Your task to perform on an android device: uninstall "File Manager" Image 0: 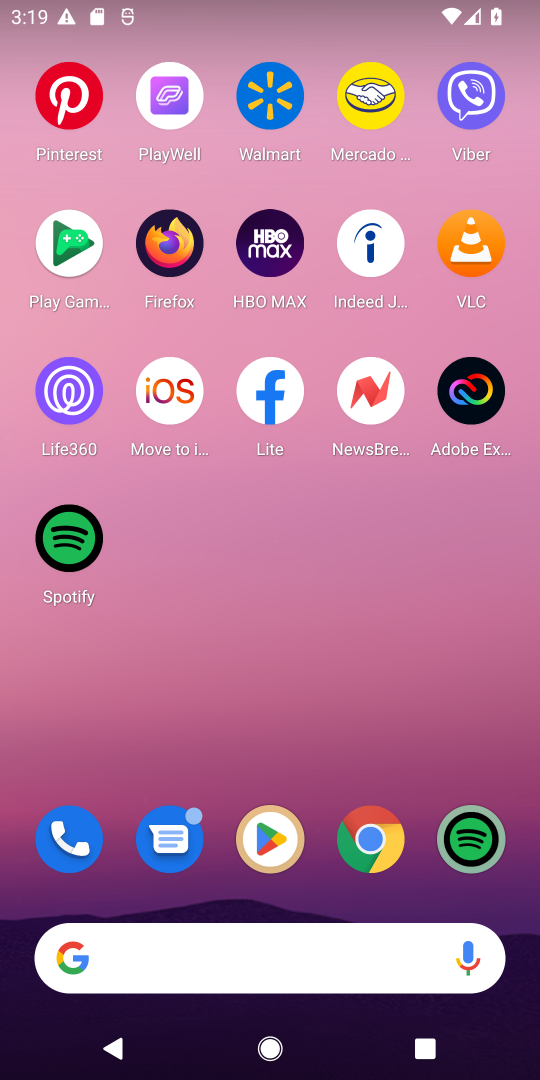
Step 0: click (284, 857)
Your task to perform on an android device: uninstall "File Manager" Image 1: 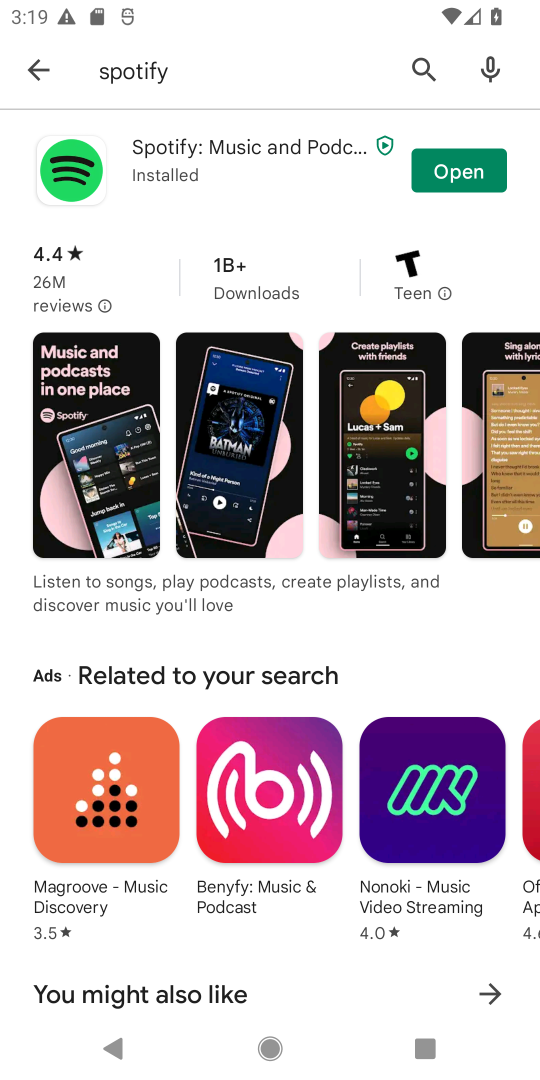
Step 1: click (43, 80)
Your task to perform on an android device: uninstall "File Manager" Image 2: 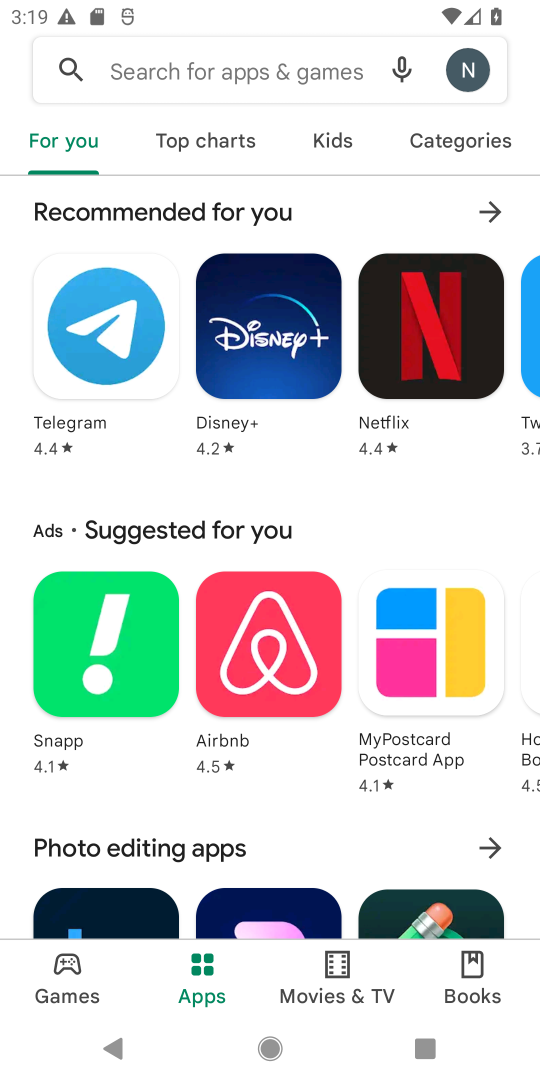
Step 2: click (146, 65)
Your task to perform on an android device: uninstall "File Manager" Image 3: 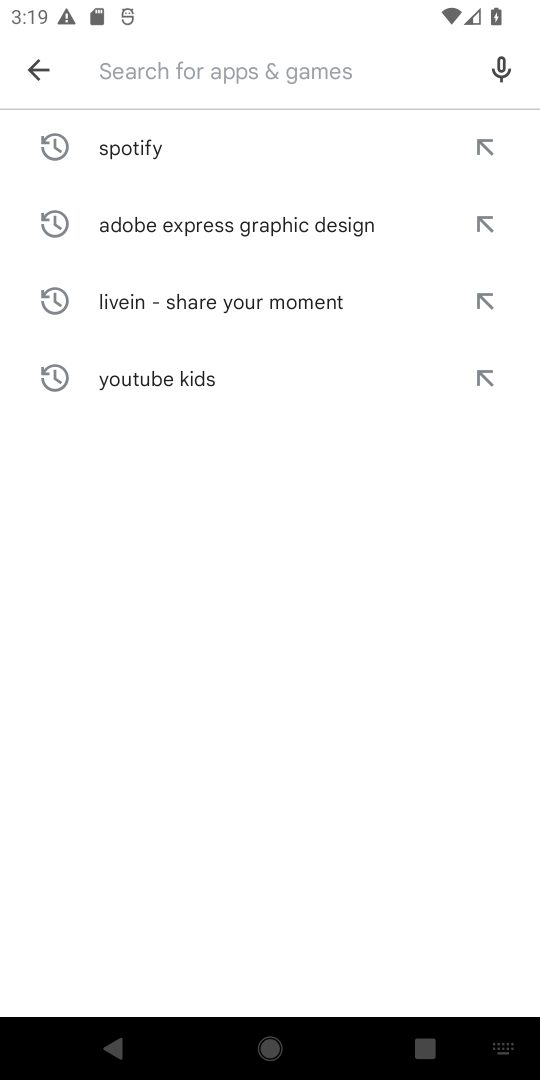
Step 3: type "File Manager"
Your task to perform on an android device: uninstall "File Manager" Image 4: 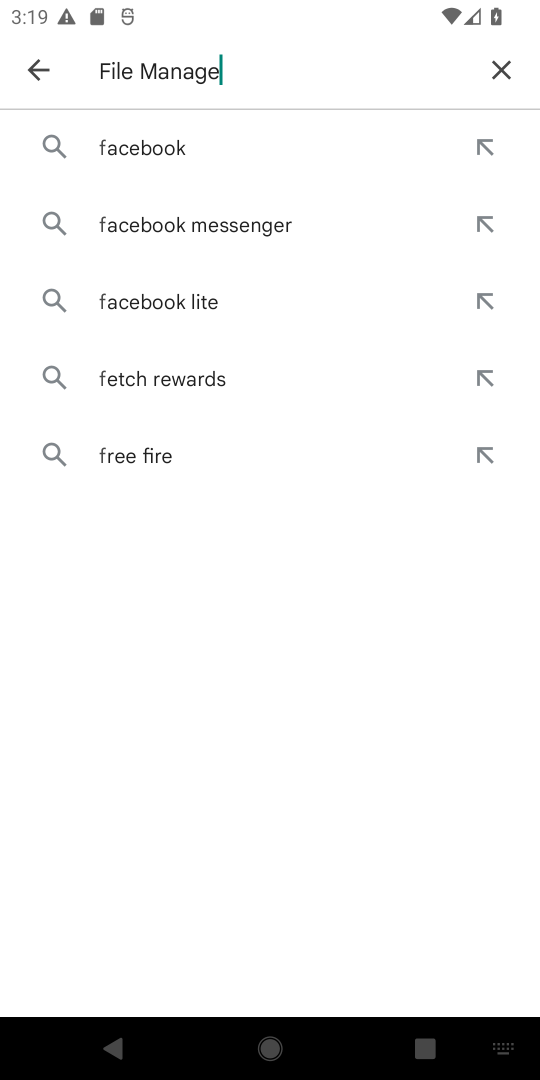
Step 4: type ""
Your task to perform on an android device: uninstall "File Manager" Image 5: 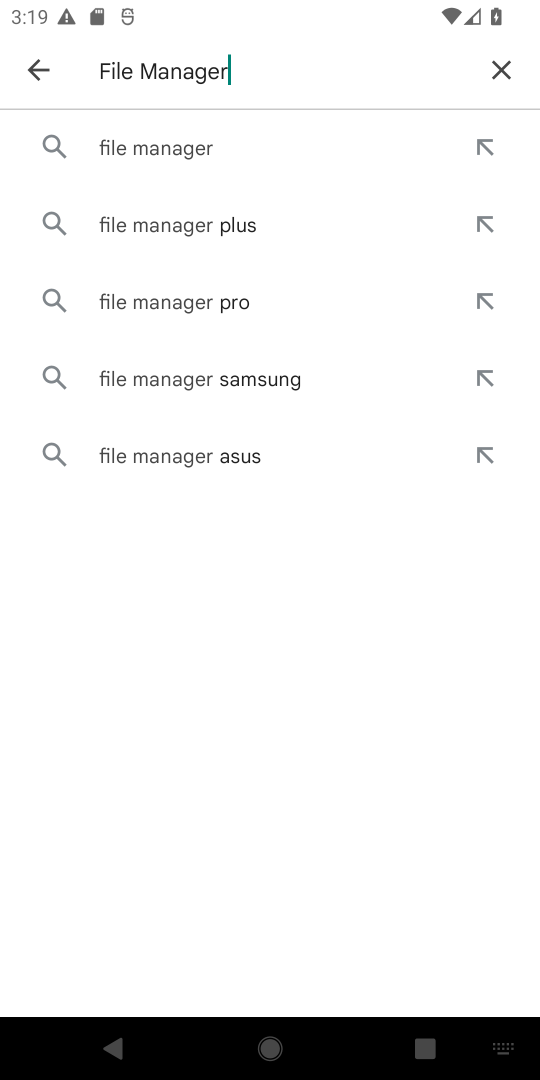
Step 5: click (97, 143)
Your task to perform on an android device: uninstall "File Manager" Image 6: 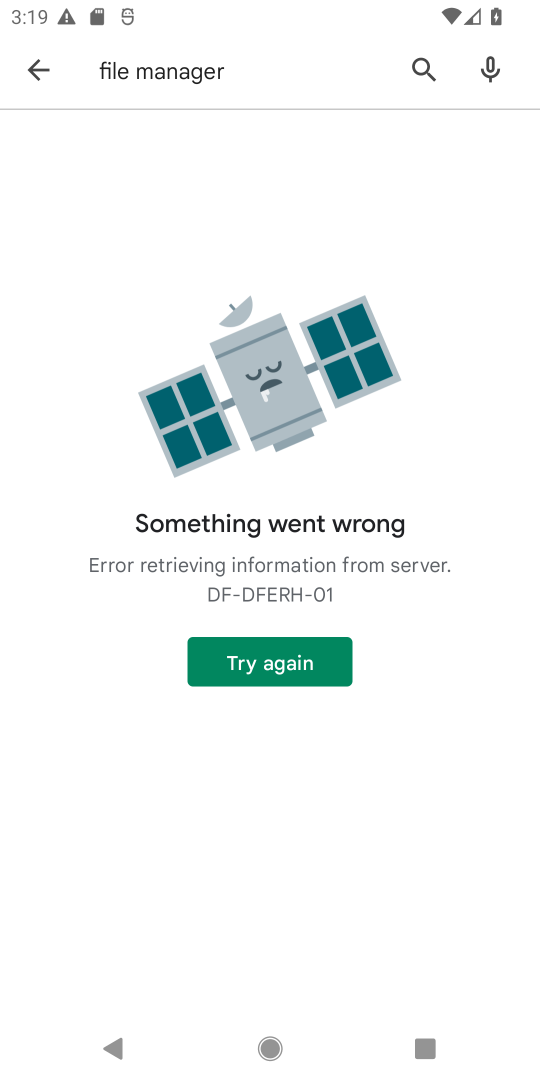
Step 6: click (278, 674)
Your task to perform on an android device: uninstall "File Manager" Image 7: 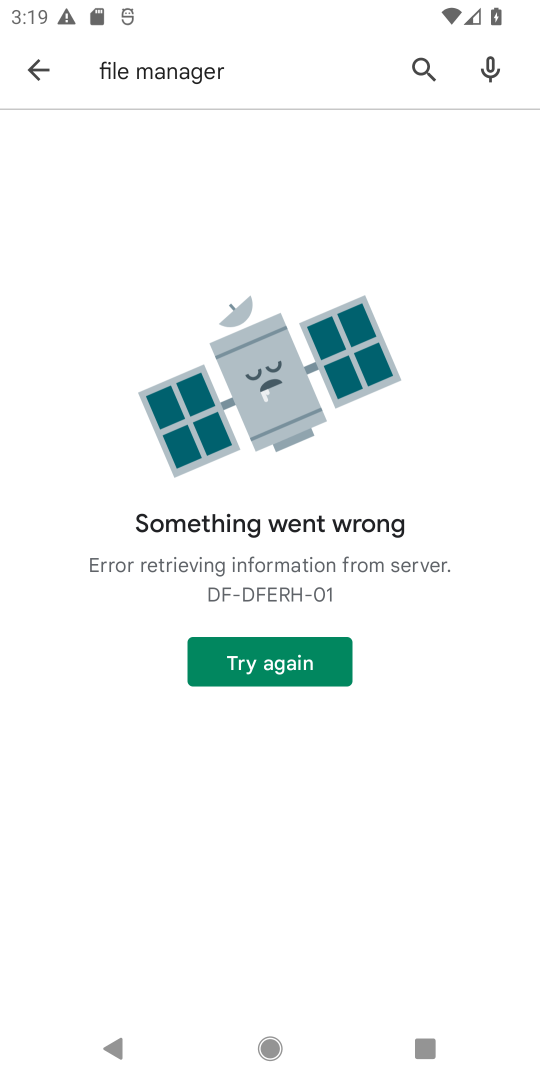
Step 7: click (271, 665)
Your task to perform on an android device: uninstall "File Manager" Image 8: 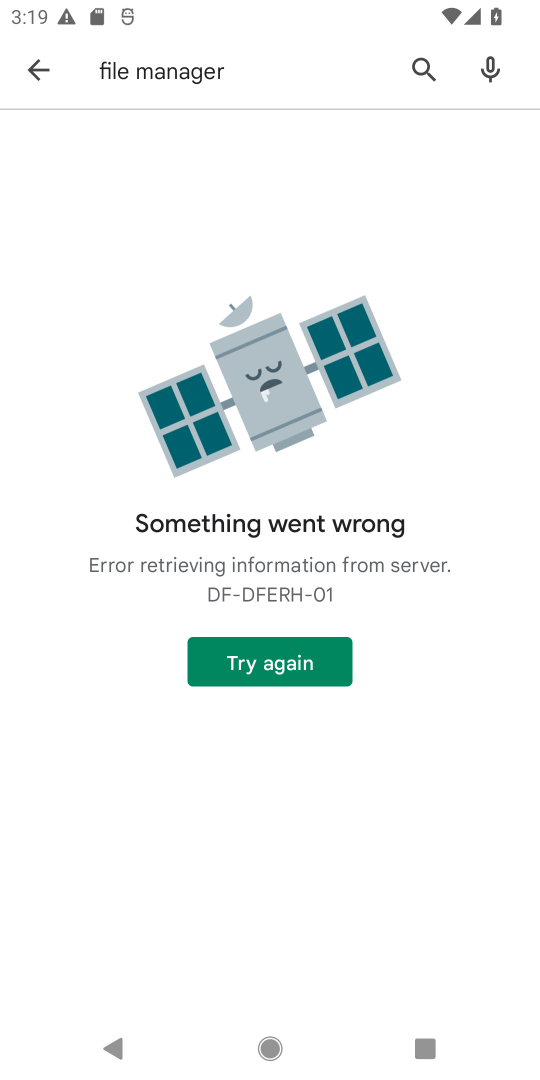
Step 8: task complete